Your task to perform on an android device: turn vacation reply on in the gmail app Image 0: 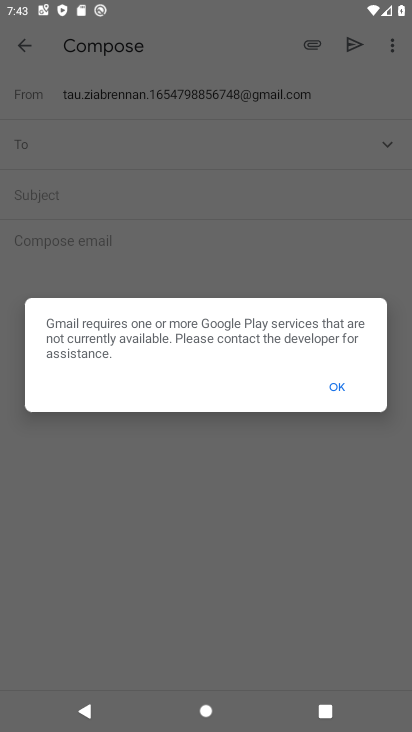
Step 0: click (346, 390)
Your task to perform on an android device: turn vacation reply on in the gmail app Image 1: 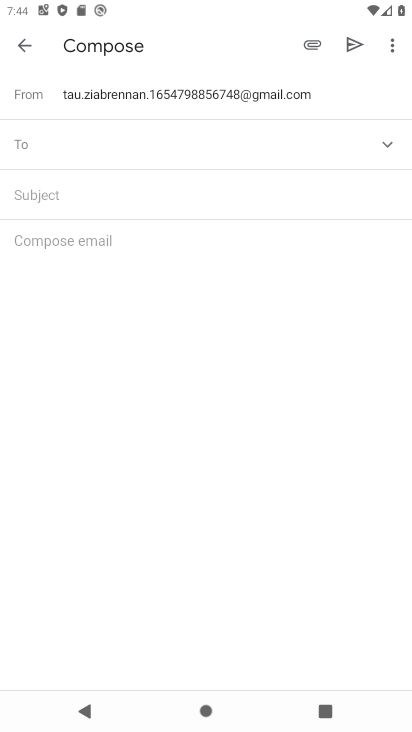
Step 1: click (17, 37)
Your task to perform on an android device: turn vacation reply on in the gmail app Image 2: 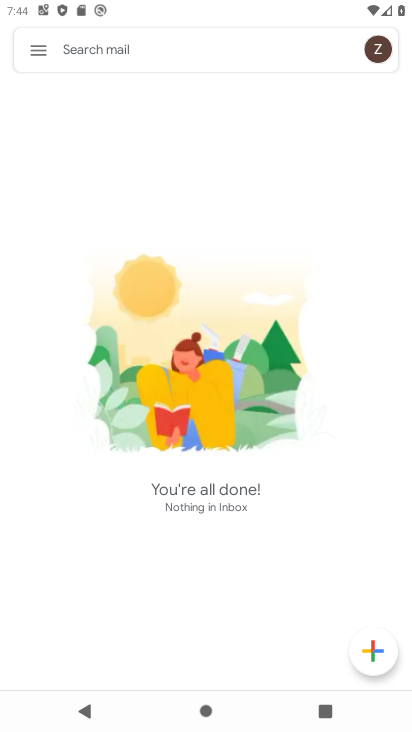
Step 2: click (56, 32)
Your task to perform on an android device: turn vacation reply on in the gmail app Image 3: 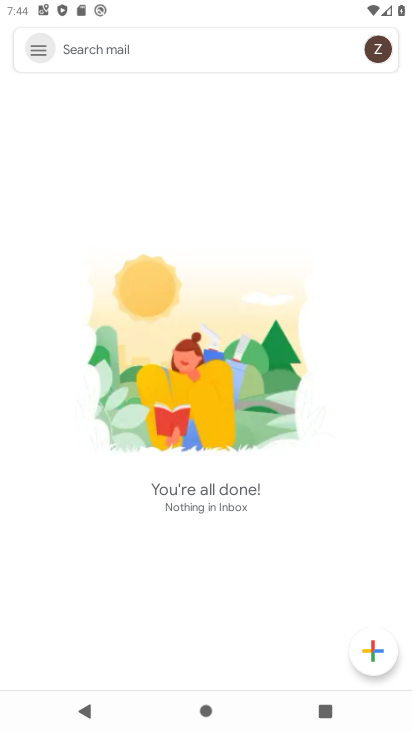
Step 3: click (27, 49)
Your task to perform on an android device: turn vacation reply on in the gmail app Image 4: 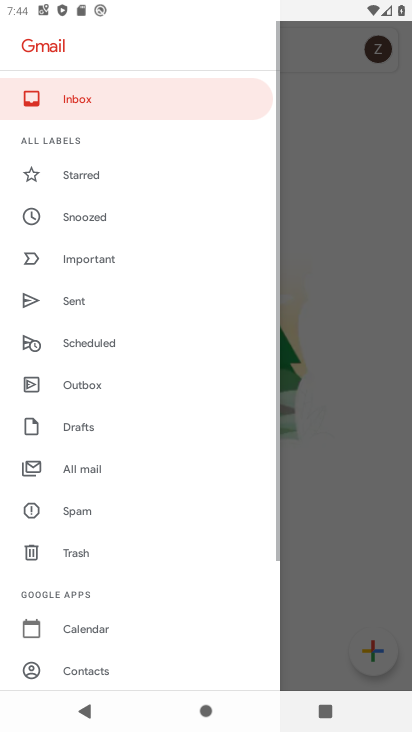
Step 4: drag from (145, 567) to (149, 296)
Your task to perform on an android device: turn vacation reply on in the gmail app Image 5: 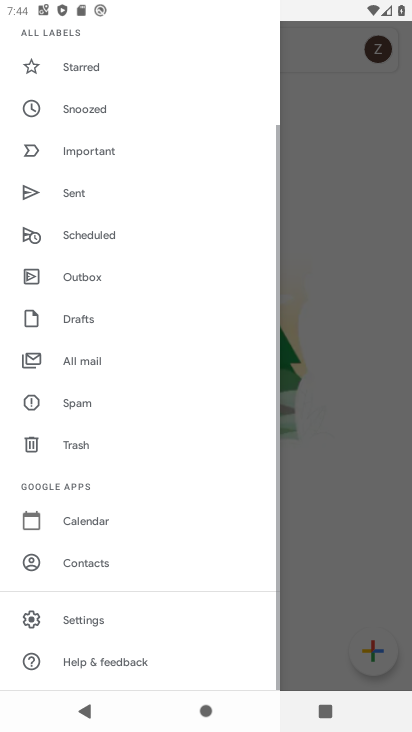
Step 5: click (131, 621)
Your task to perform on an android device: turn vacation reply on in the gmail app Image 6: 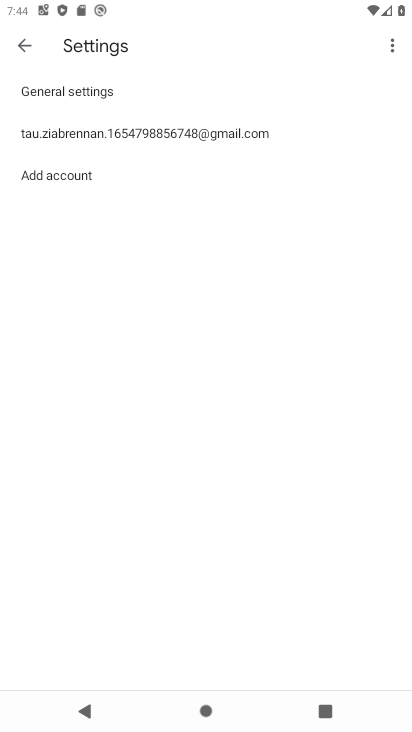
Step 6: click (184, 131)
Your task to perform on an android device: turn vacation reply on in the gmail app Image 7: 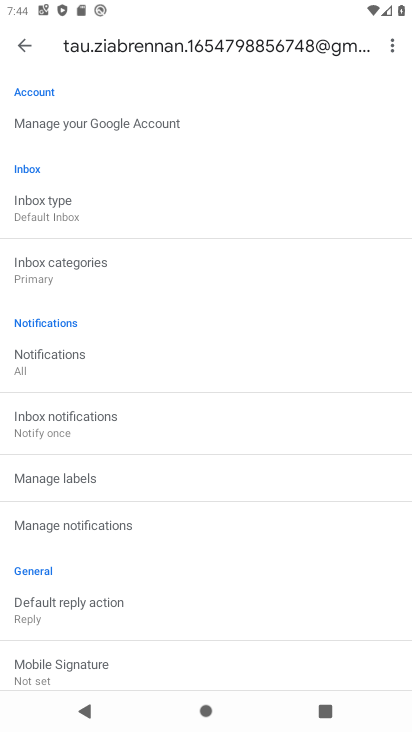
Step 7: drag from (169, 529) to (191, 288)
Your task to perform on an android device: turn vacation reply on in the gmail app Image 8: 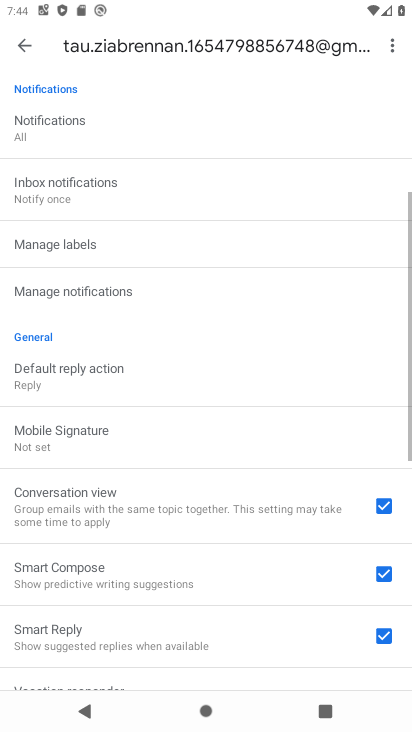
Step 8: drag from (175, 496) to (155, 158)
Your task to perform on an android device: turn vacation reply on in the gmail app Image 9: 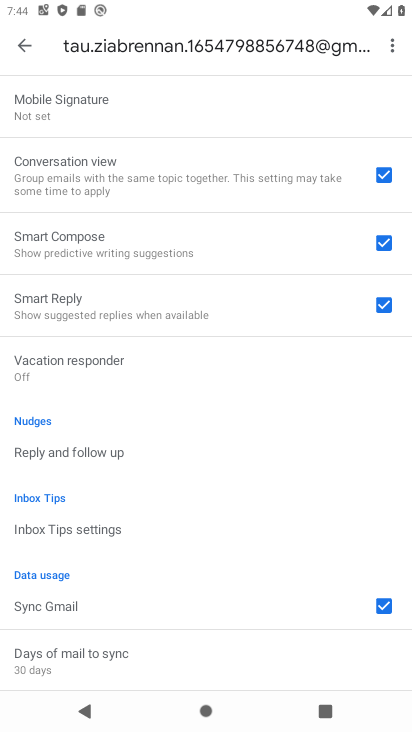
Step 9: click (194, 361)
Your task to perform on an android device: turn vacation reply on in the gmail app Image 10: 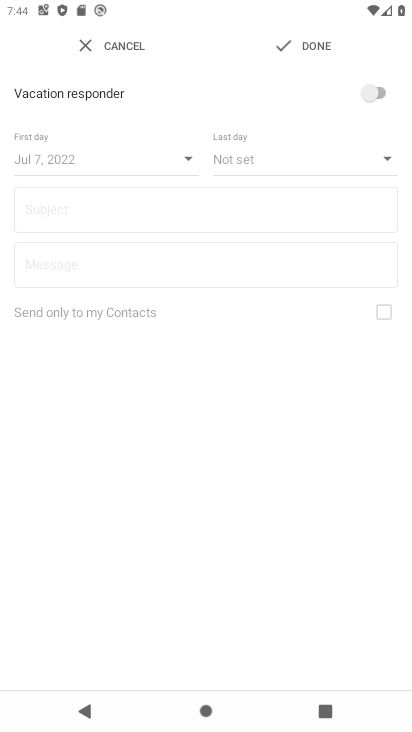
Step 10: click (308, 50)
Your task to perform on an android device: turn vacation reply on in the gmail app Image 11: 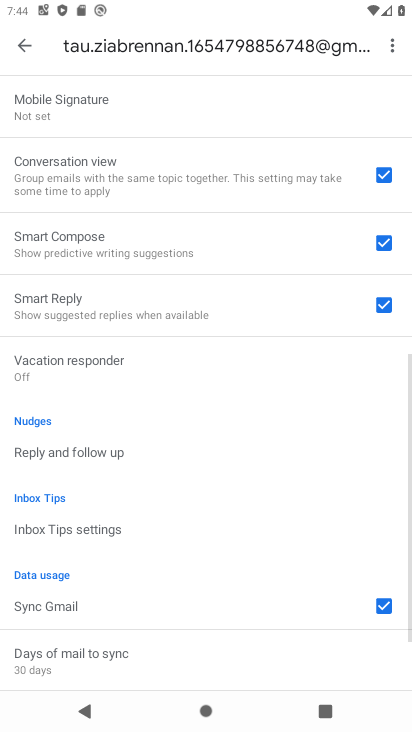
Step 11: task complete